Your task to perform on an android device: show emergency info Image 0: 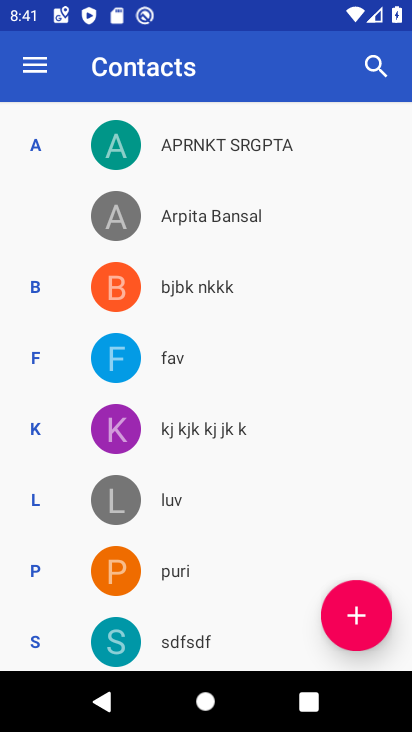
Step 0: press home button
Your task to perform on an android device: show emergency info Image 1: 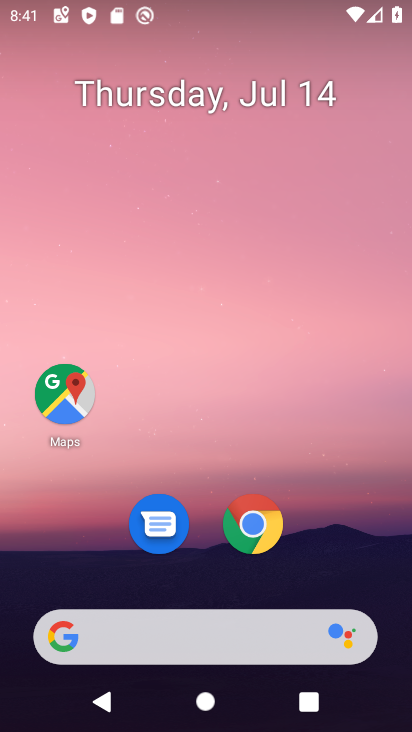
Step 1: drag from (315, 518) to (365, 41)
Your task to perform on an android device: show emergency info Image 2: 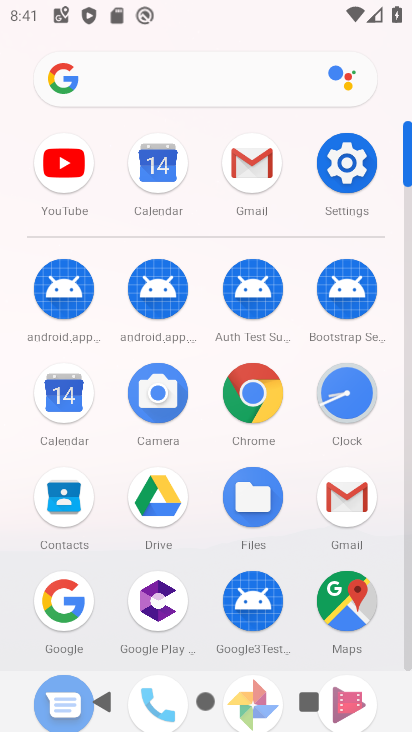
Step 2: click (349, 160)
Your task to perform on an android device: show emergency info Image 3: 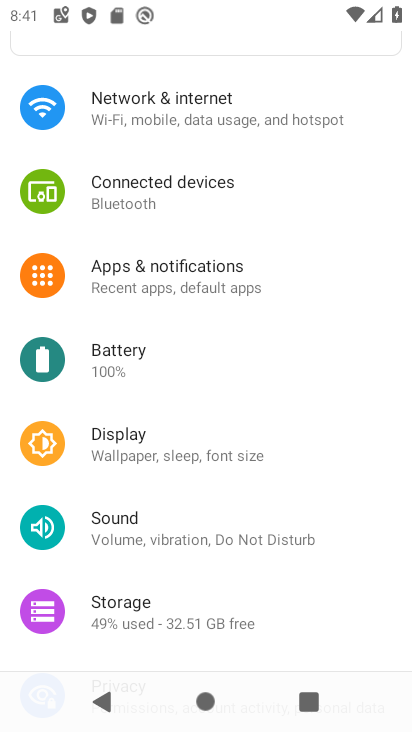
Step 3: drag from (250, 373) to (278, 0)
Your task to perform on an android device: show emergency info Image 4: 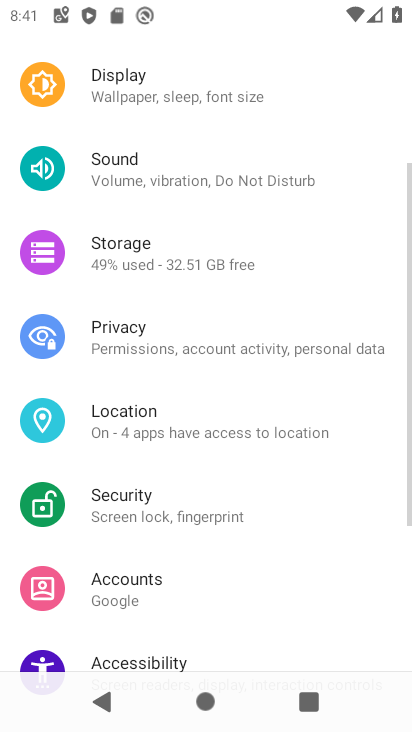
Step 4: drag from (225, 410) to (247, 0)
Your task to perform on an android device: show emergency info Image 5: 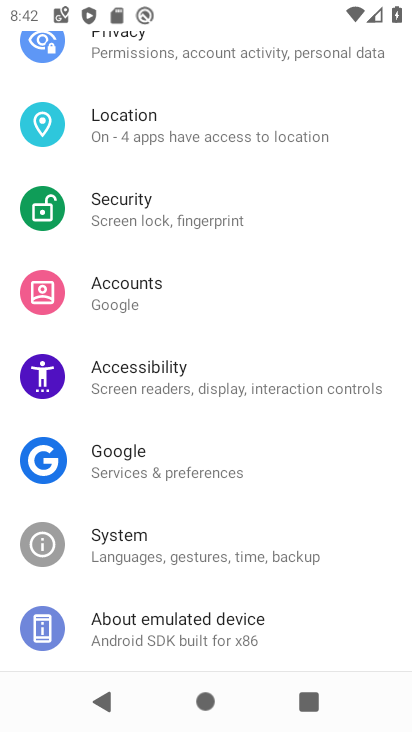
Step 5: click (170, 622)
Your task to perform on an android device: show emergency info Image 6: 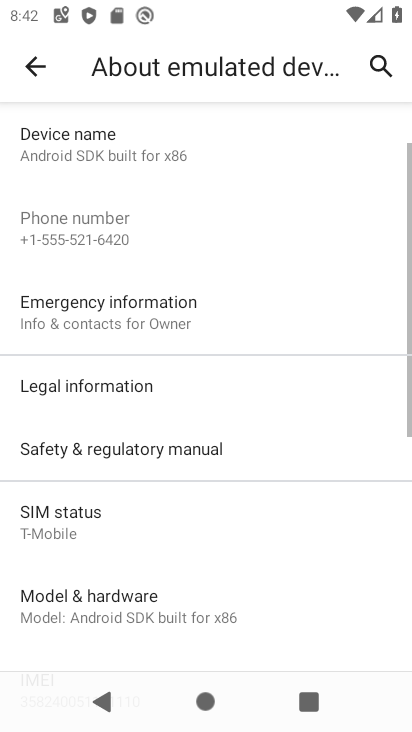
Step 6: click (189, 317)
Your task to perform on an android device: show emergency info Image 7: 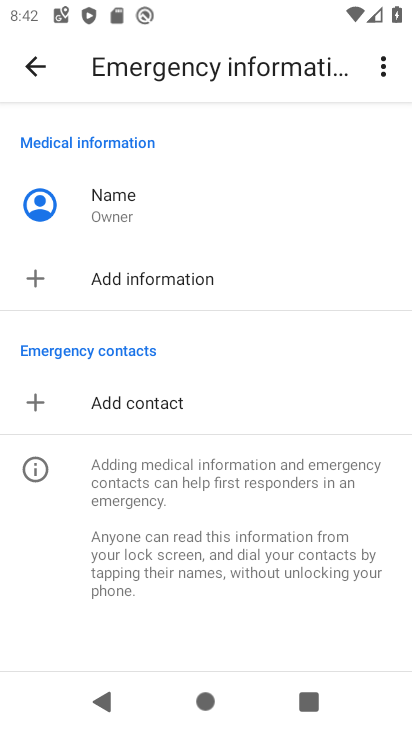
Step 7: task complete